Your task to perform on an android device: toggle javascript in the chrome app Image 0: 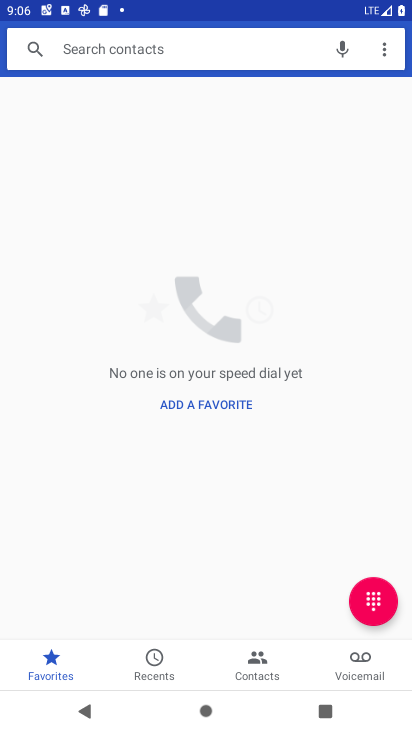
Step 0: press home button
Your task to perform on an android device: toggle javascript in the chrome app Image 1: 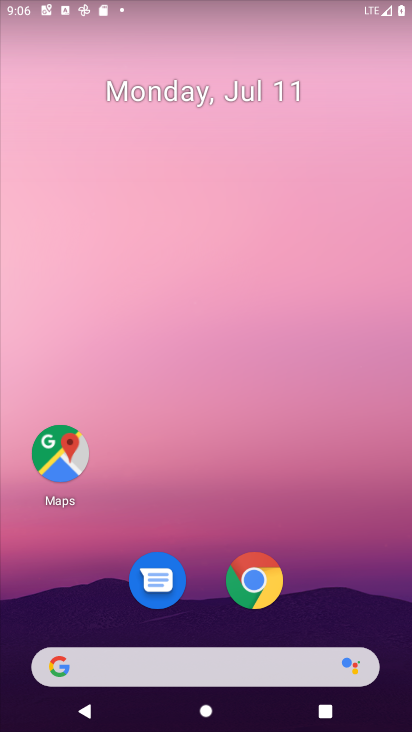
Step 1: click (268, 576)
Your task to perform on an android device: toggle javascript in the chrome app Image 2: 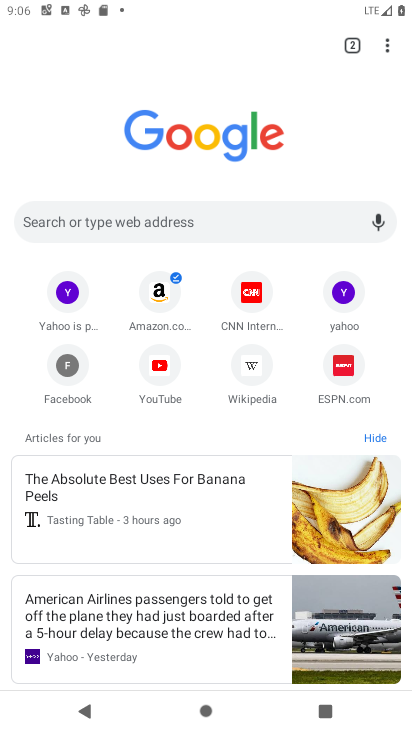
Step 2: click (386, 47)
Your task to perform on an android device: toggle javascript in the chrome app Image 3: 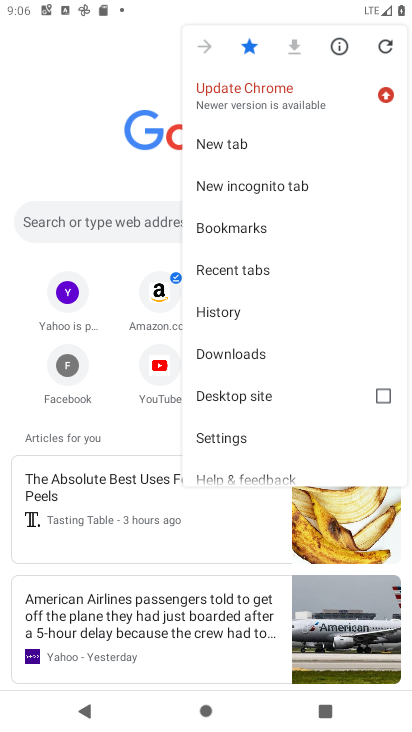
Step 3: click (245, 441)
Your task to perform on an android device: toggle javascript in the chrome app Image 4: 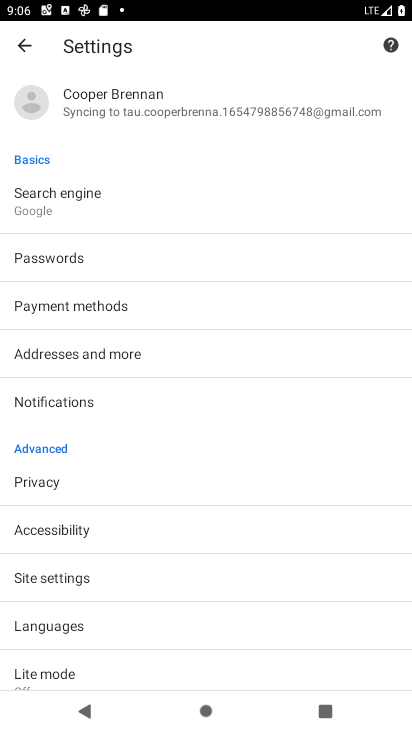
Step 4: click (69, 572)
Your task to perform on an android device: toggle javascript in the chrome app Image 5: 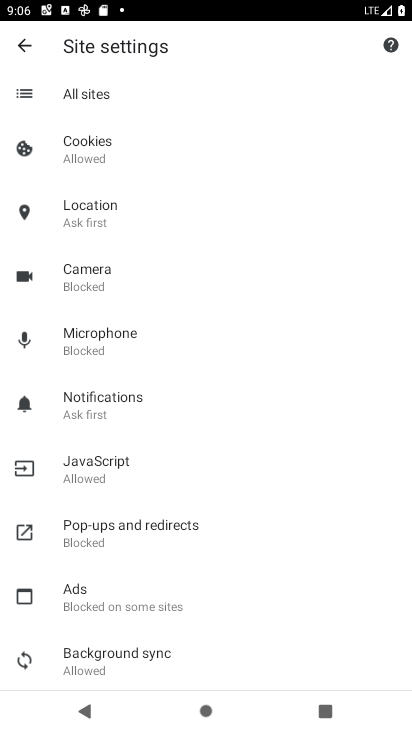
Step 5: click (99, 466)
Your task to perform on an android device: toggle javascript in the chrome app Image 6: 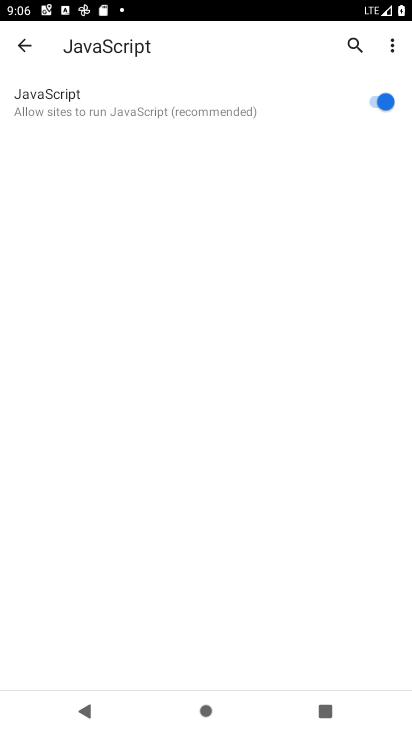
Step 6: click (378, 99)
Your task to perform on an android device: toggle javascript in the chrome app Image 7: 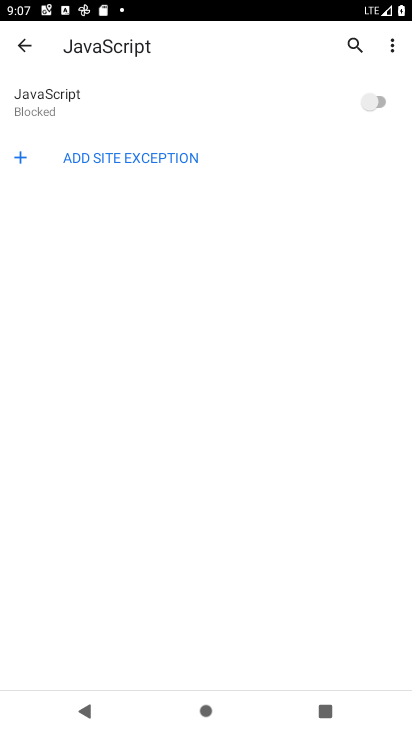
Step 7: task complete